Your task to perform on an android device: Go to battery settings Image 0: 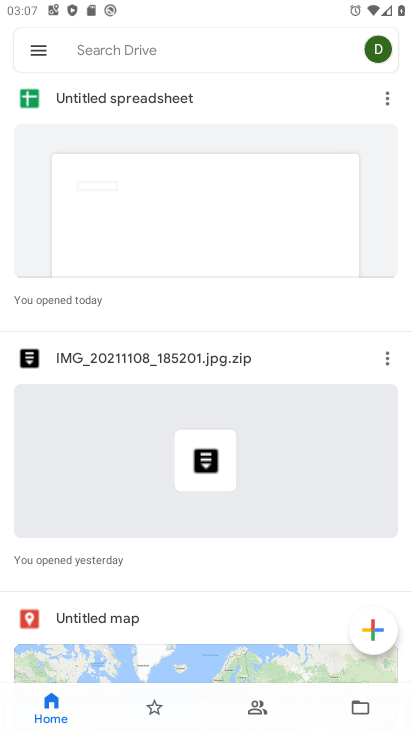
Step 0: press back button
Your task to perform on an android device: Go to battery settings Image 1: 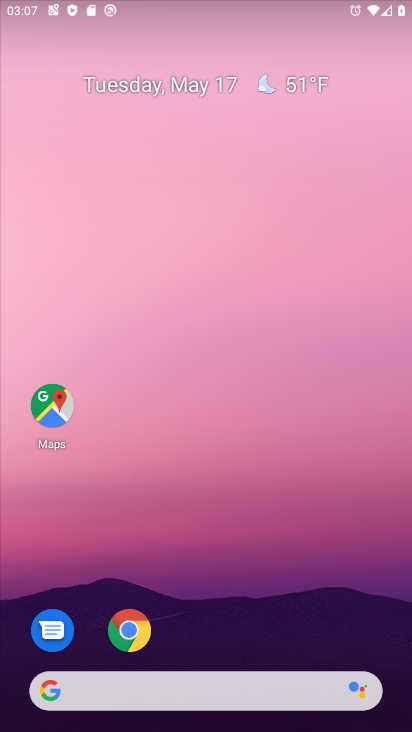
Step 1: drag from (245, 623) to (294, 48)
Your task to perform on an android device: Go to battery settings Image 2: 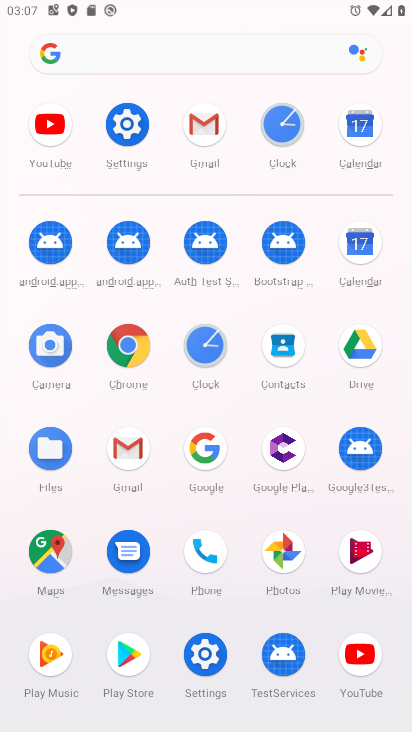
Step 2: click (115, 111)
Your task to perform on an android device: Go to battery settings Image 3: 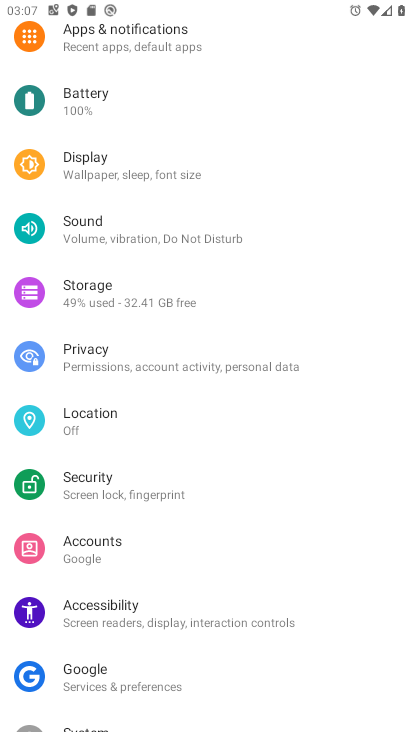
Step 3: drag from (175, 142) to (158, 612)
Your task to perform on an android device: Go to battery settings Image 4: 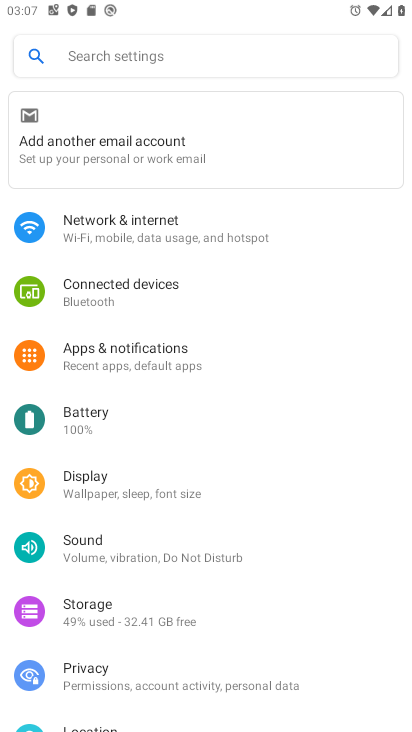
Step 4: click (89, 425)
Your task to perform on an android device: Go to battery settings Image 5: 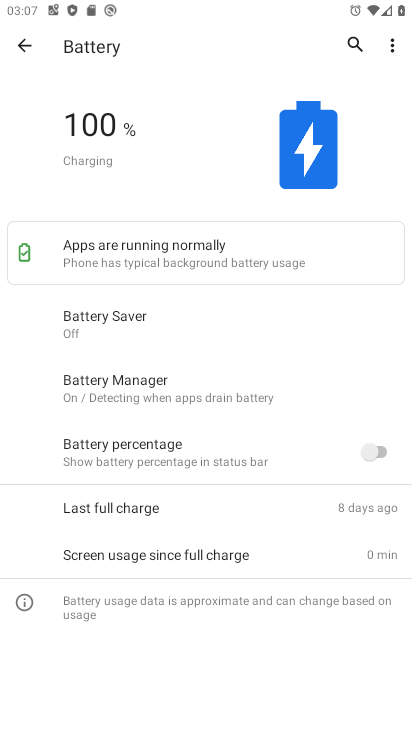
Step 5: task complete